Your task to perform on an android device: What's on my calendar today? Image 0: 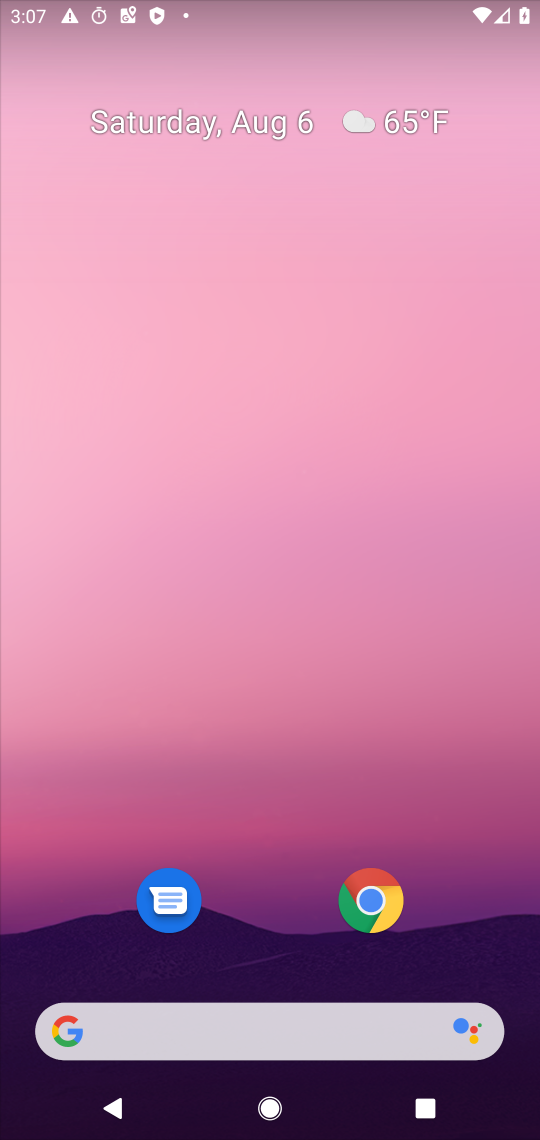
Step 0: press home button
Your task to perform on an android device: What's on my calendar today? Image 1: 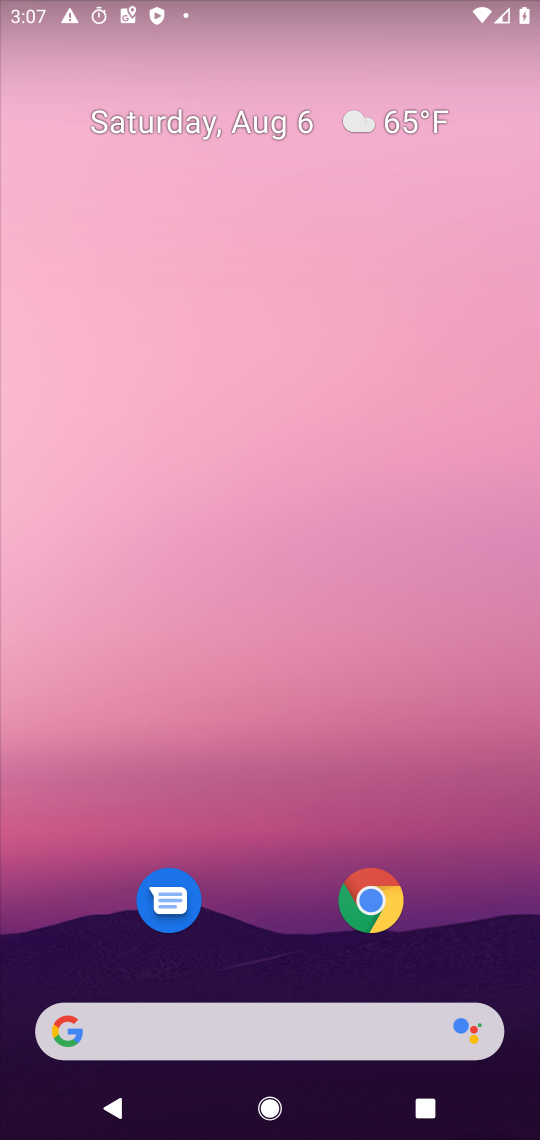
Step 1: drag from (296, 822) to (255, 93)
Your task to perform on an android device: What's on my calendar today? Image 2: 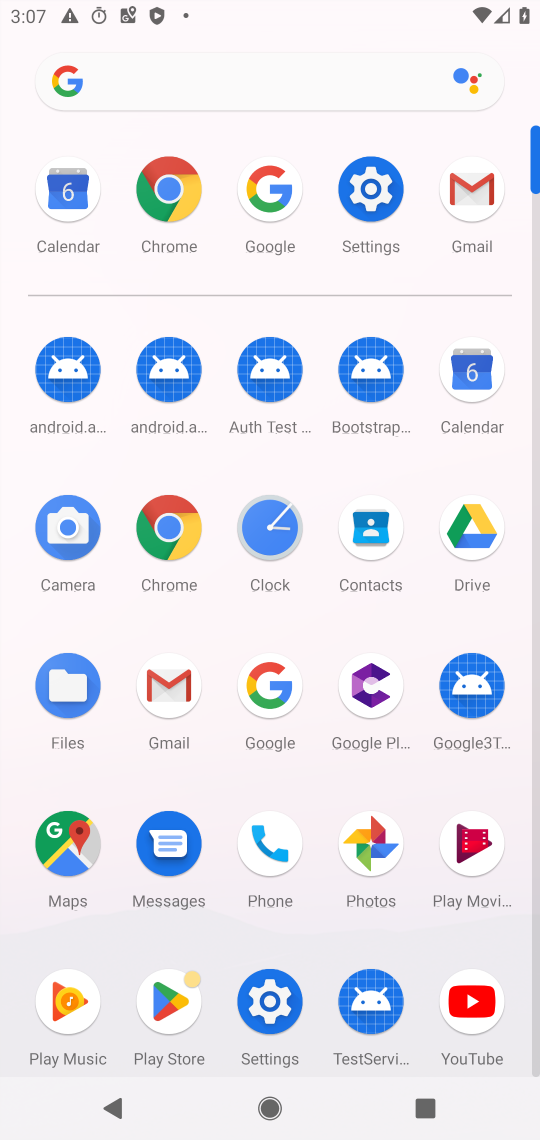
Step 2: click (473, 374)
Your task to perform on an android device: What's on my calendar today? Image 3: 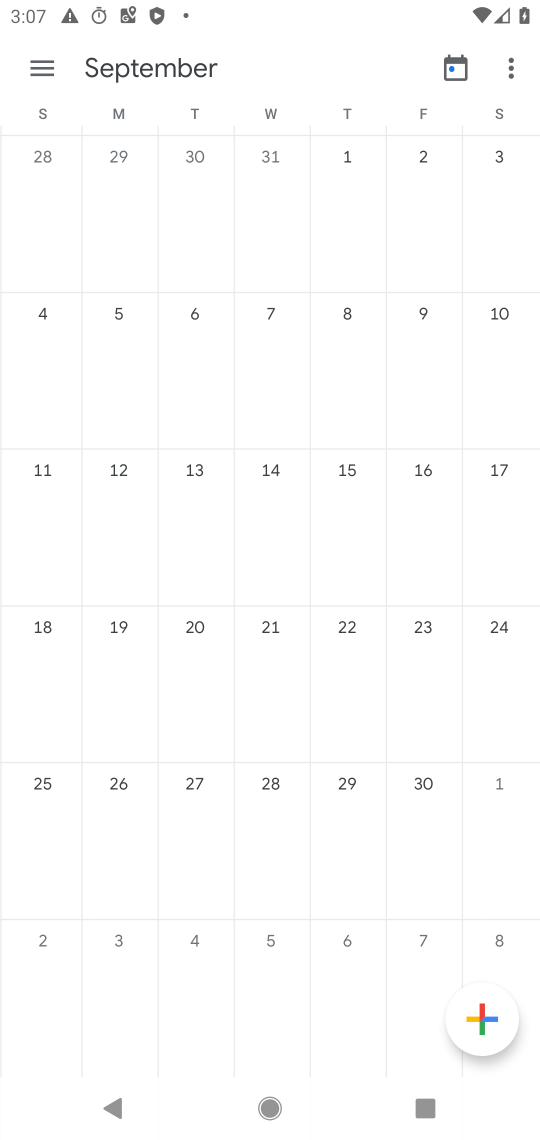
Step 3: drag from (18, 216) to (517, 252)
Your task to perform on an android device: What's on my calendar today? Image 4: 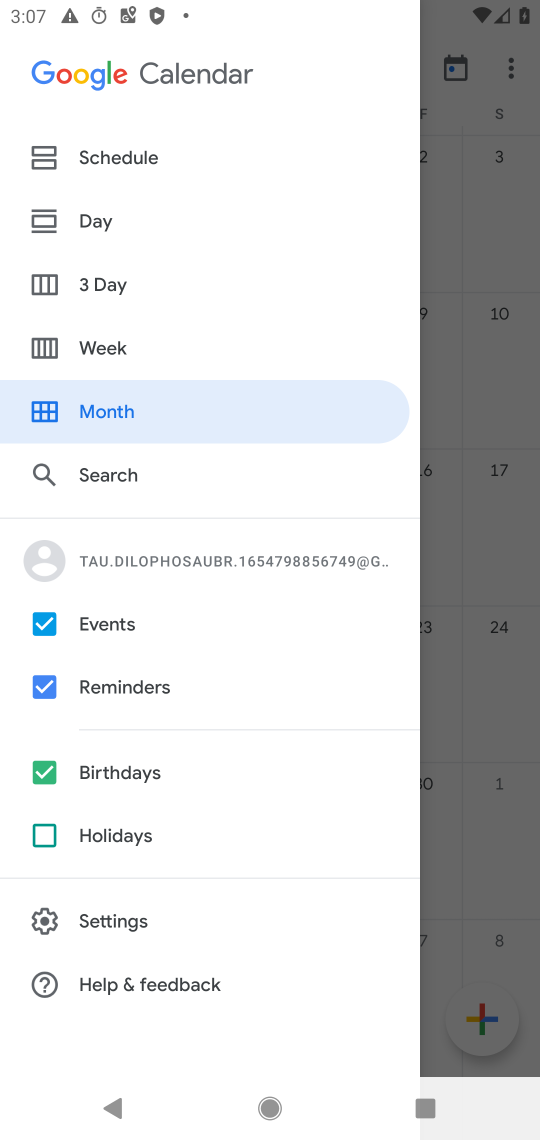
Step 4: click (116, 416)
Your task to perform on an android device: What's on my calendar today? Image 5: 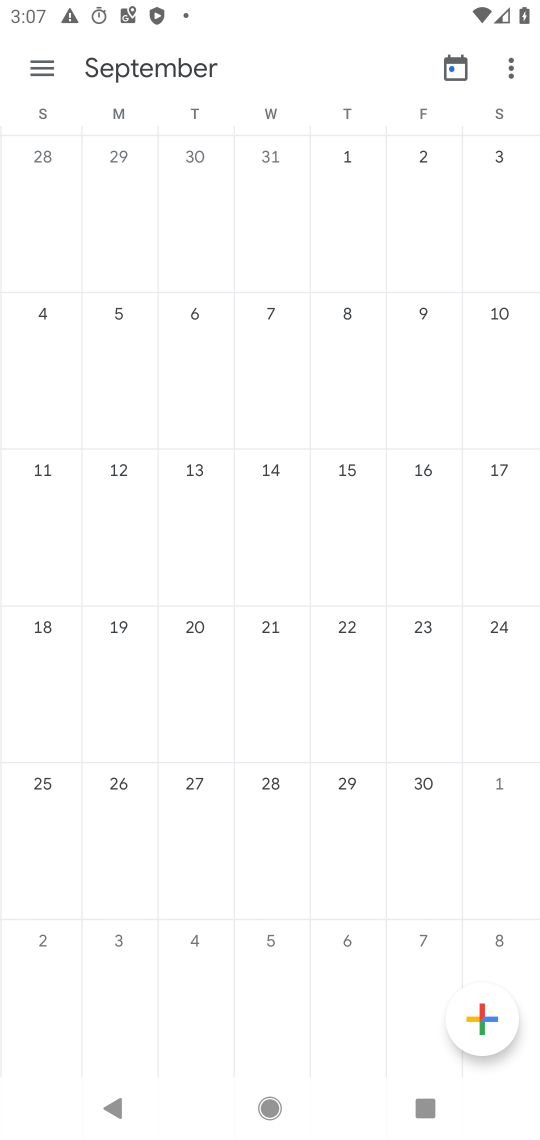
Step 5: drag from (38, 265) to (539, 283)
Your task to perform on an android device: What's on my calendar today? Image 6: 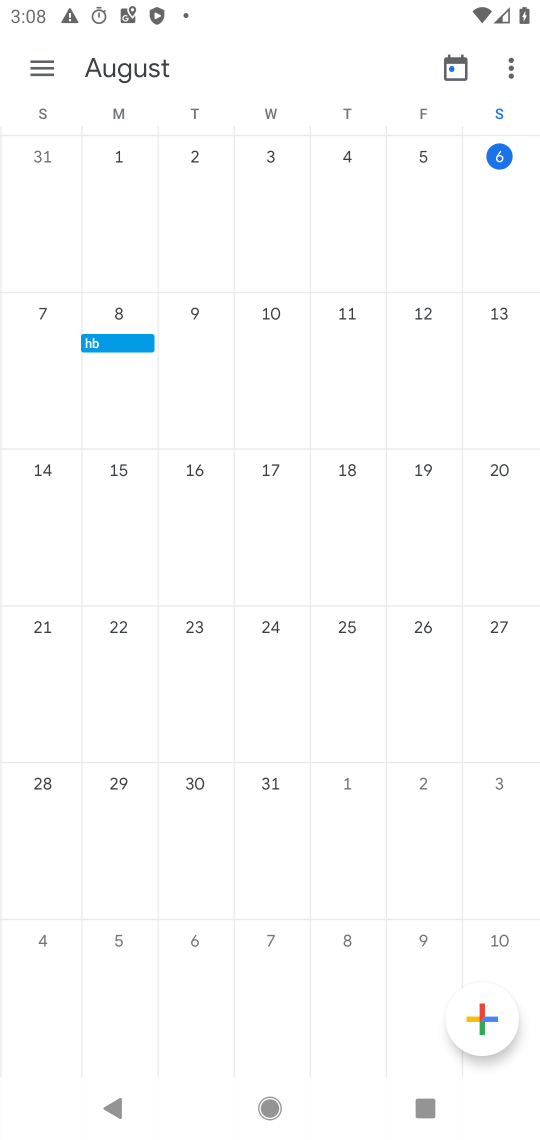
Step 6: click (502, 156)
Your task to perform on an android device: What's on my calendar today? Image 7: 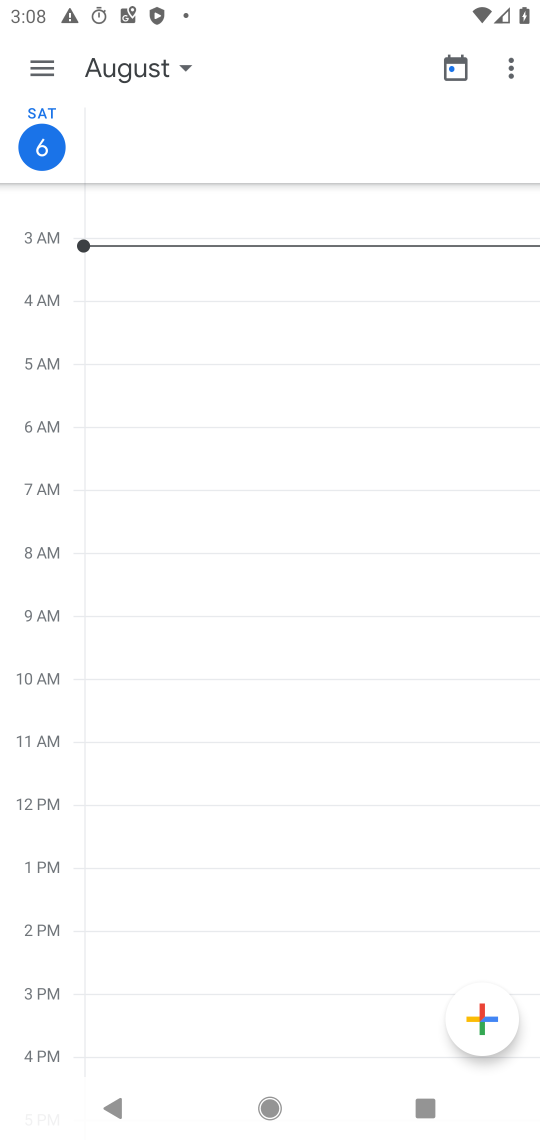
Step 7: task complete